Your task to perform on an android device: Show me popular videos on Youtube Image 0: 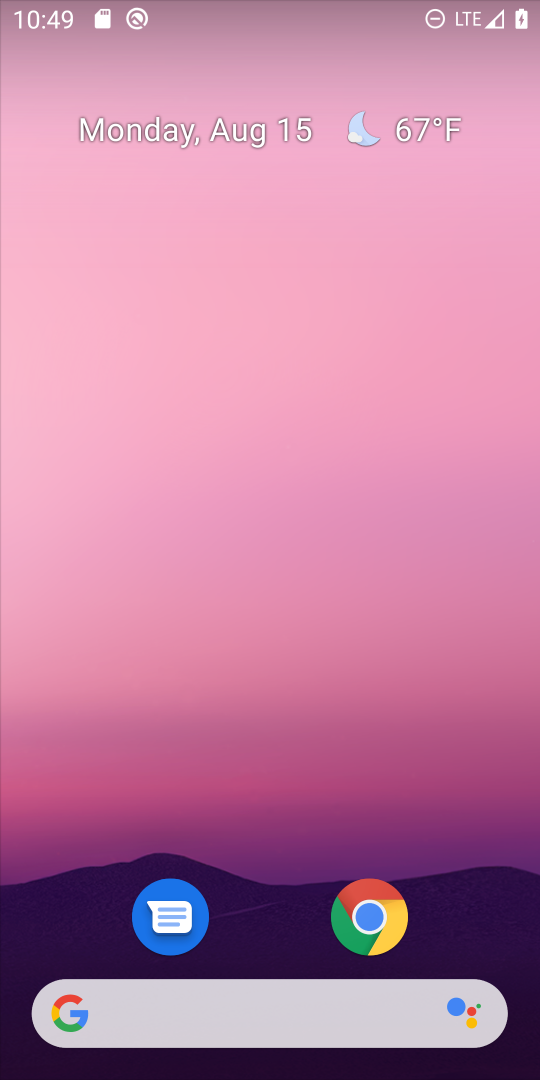
Step 0: drag from (276, 789) to (426, 3)
Your task to perform on an android device: Show me popular videos on Youtube Image 1: 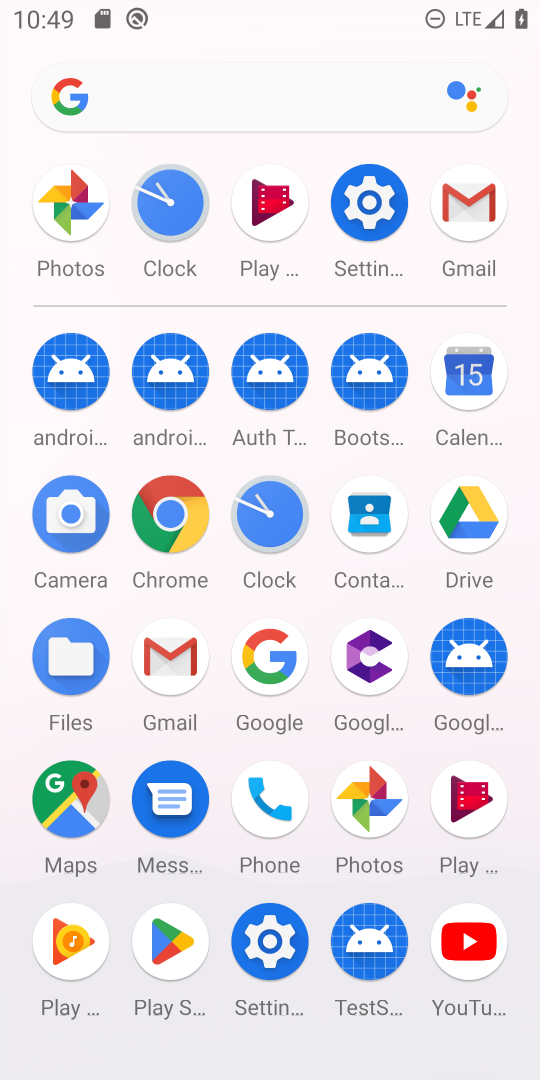
Step 1: click (457, 931)
Your task to perform on an android device: Show me popular videos on Youtube Image 2: 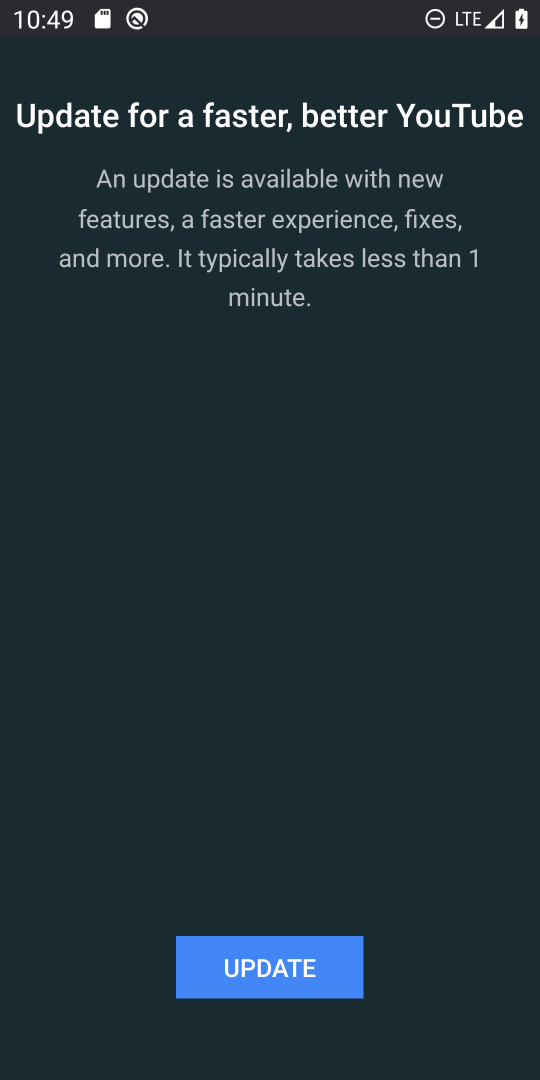
Step 2: click (332, 965)
Your task to perform on an android device: Show me popular videos on Youtube Image 3: 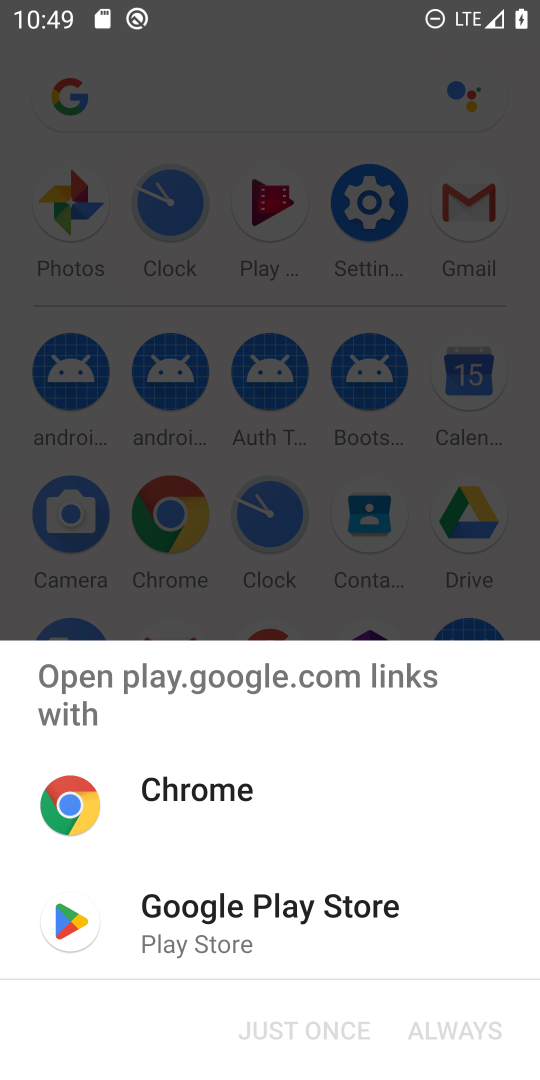
Step 3: click (266, 917)
Your task to perform on an android device: Show me popular videos on Youtube Image 4: 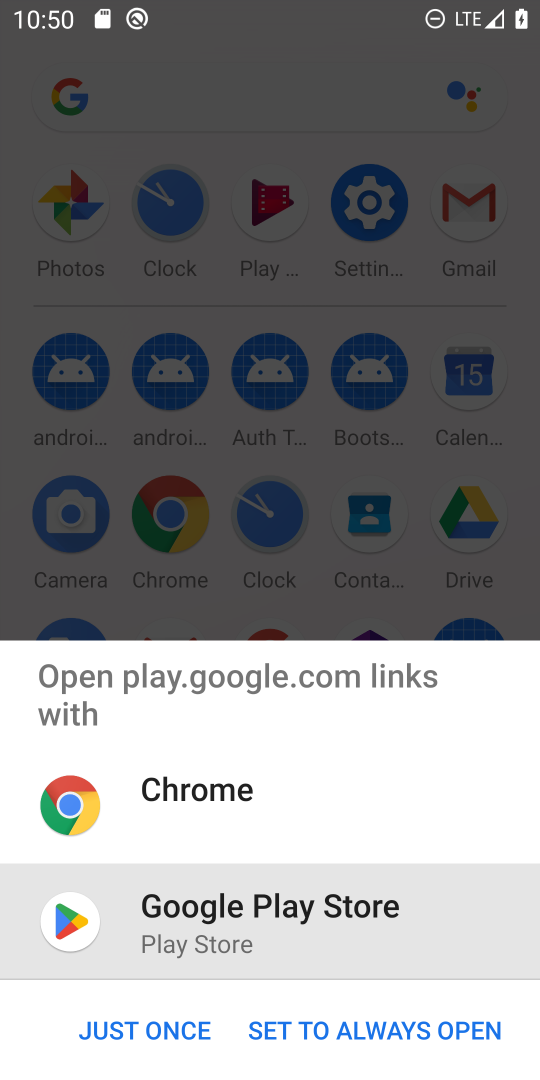
Step 4: click (167, 1037)
Your task to perform on an android device: Show me popular videos on Youtube Image 5: 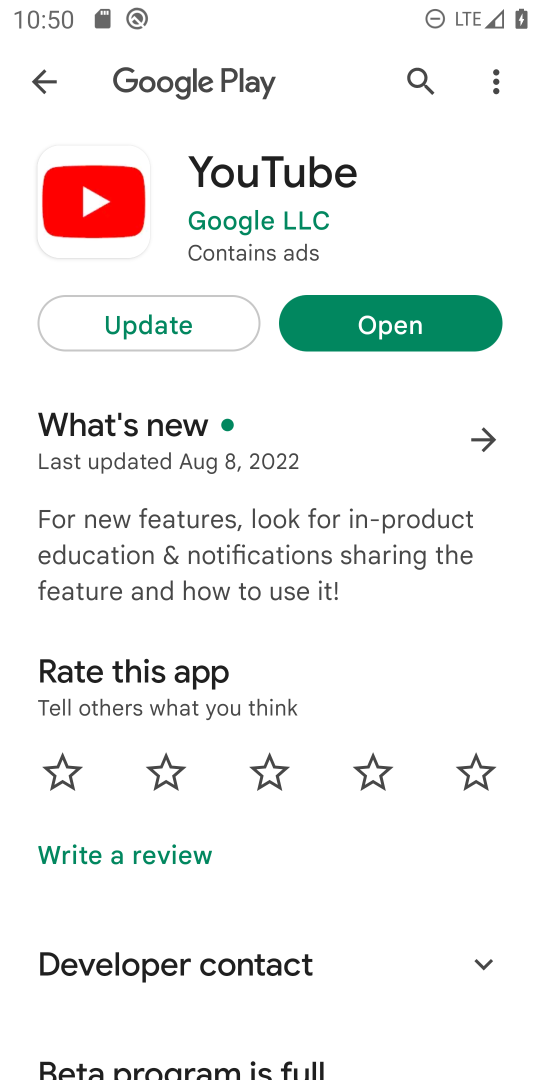
Step 5: click (172, 312)
Your task to perform on an android device: Show me popular videos on Youtube Image 6: 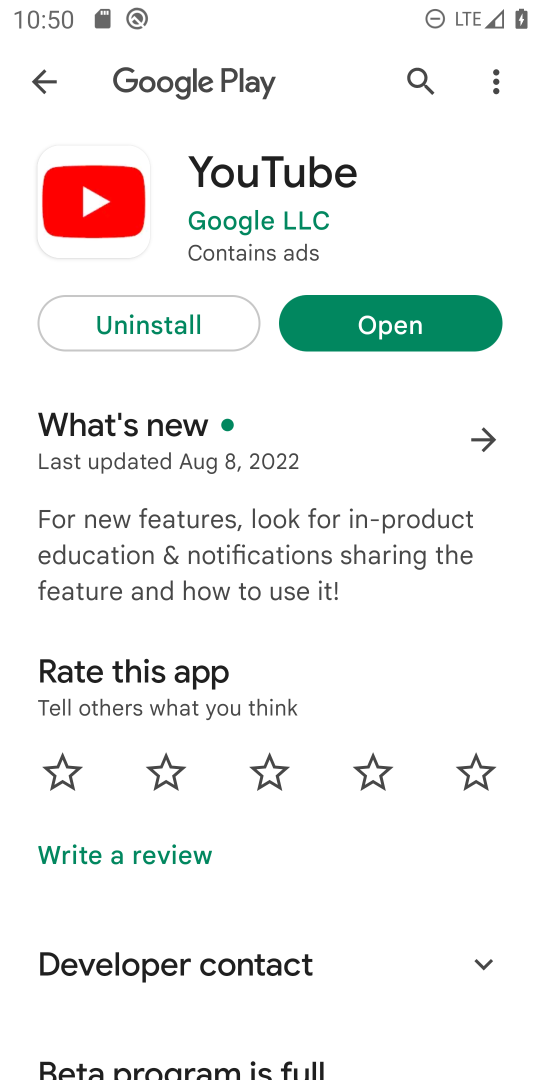
Step 6: click (367, 327)
Your task to perform on an android device: Show me popular videos on Youtube Image 7: 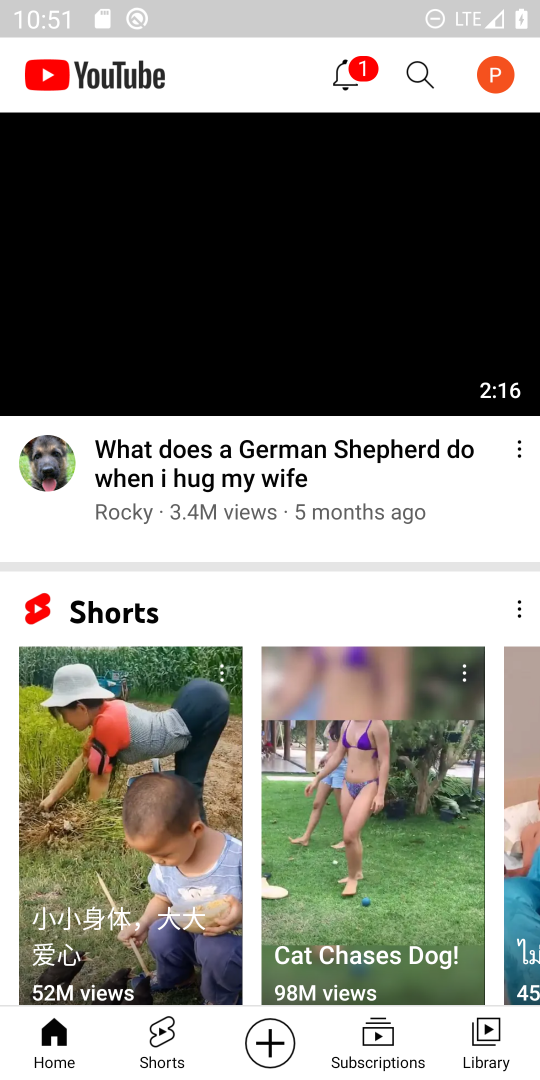
Step 7: click (421, 66)
Your task to perform on an android device: Show me popular videos on Youtube Image 8: 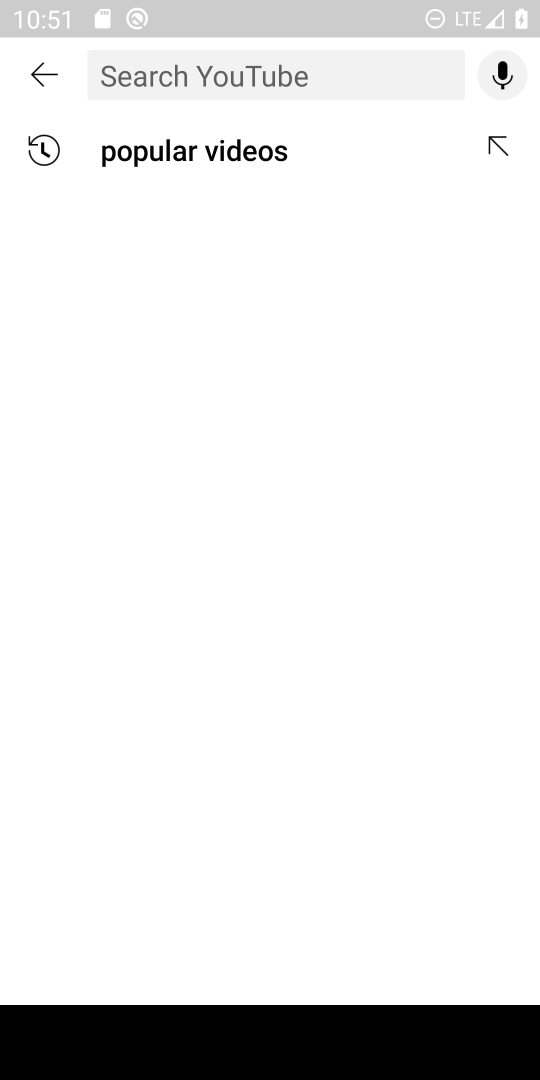
Step 8: click (273, 145)
Your task to perform on an android device: Show me popular videos on Youtube Image 9: 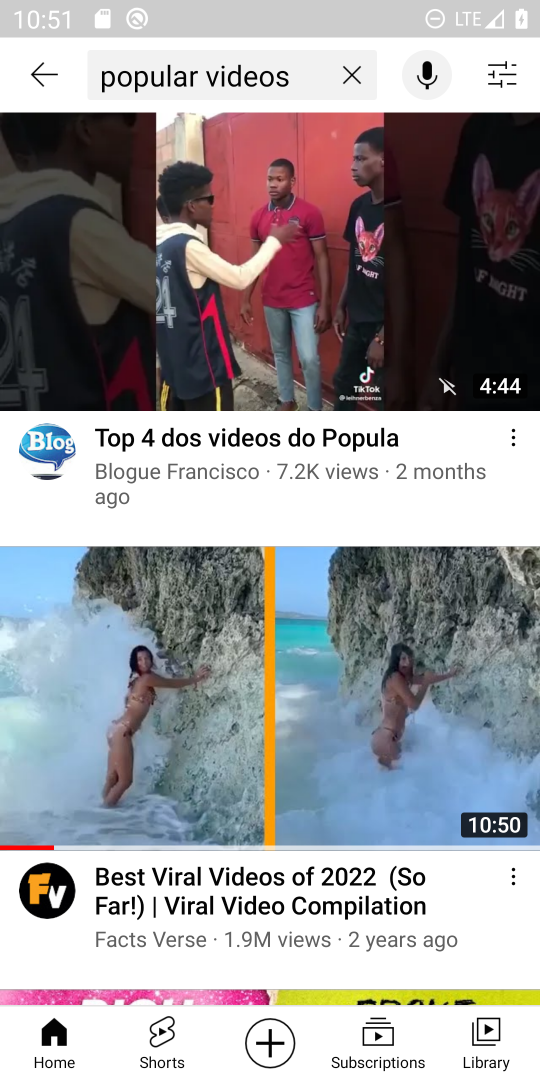
Step 9: click (270, 216)
Your task to perform on an android device: Show me popular videos on Youtube Image 10: 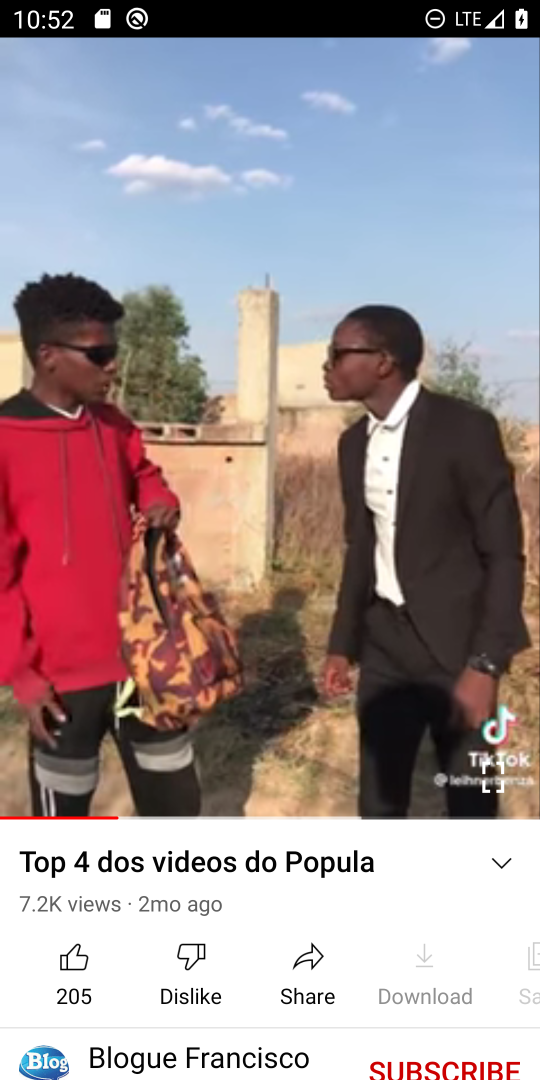
Step 10: task complete